Your task to perform on an android device: turn vacation reply on in the gmail app Image 0: 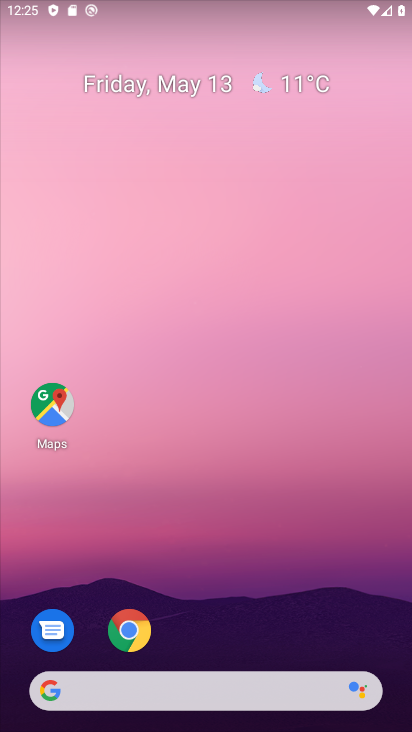
Step 0: click (40, 411)
Your task to perform on an android device: turn vacation reply on in the gmail app Image 1: 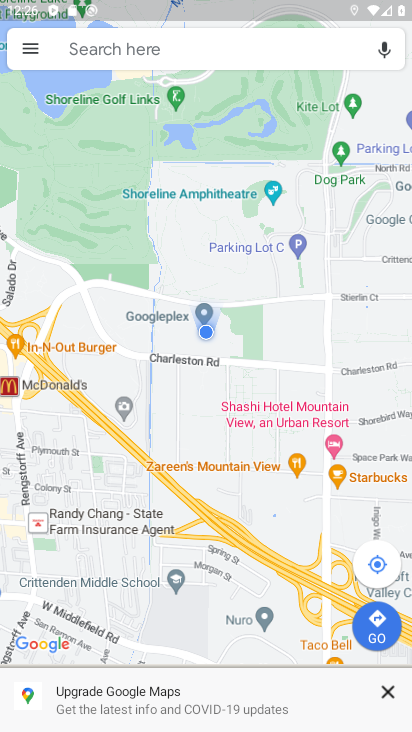
Step 1: press home button
Your task to perform on an android device: turn vacation reply on in the gmail app Image 2: 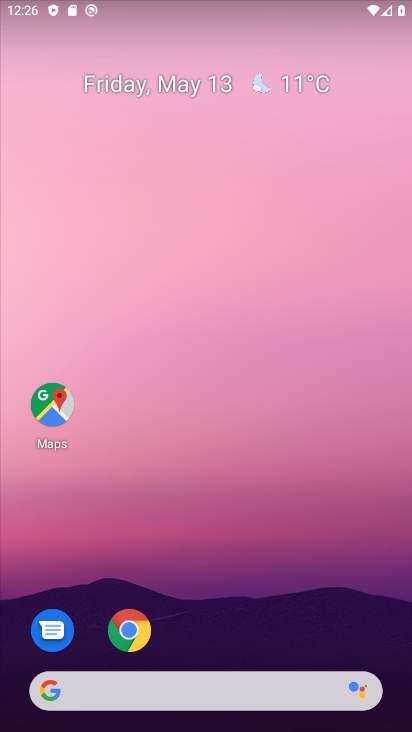
Step 2: drag from (42, 551) to (221, 242)
Your task to perform on an android device: turn vacation reply on in the gmail app Image 3: 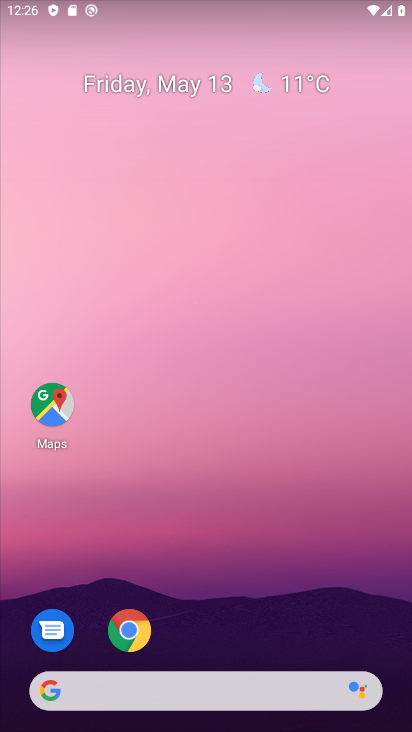
Step 3: drag from (22, 494) to (221, 162)
Your task to perform on an android device: turn vacation reply on in the gmail app Image 4: 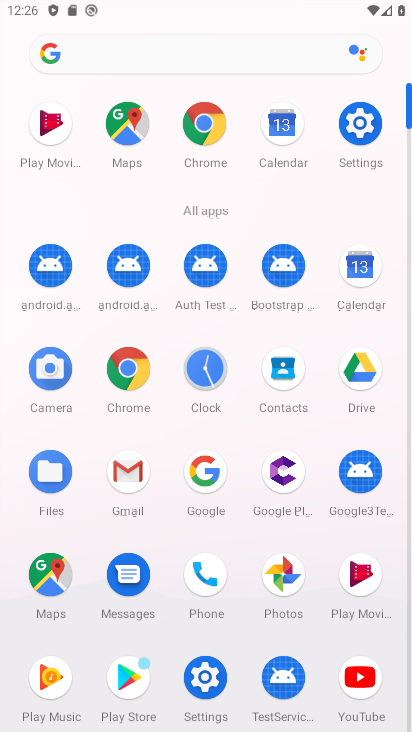
Step 4: click (128, 479)
Your task to perform on an android device: turn vacation reply on in the gmail app Image 5: 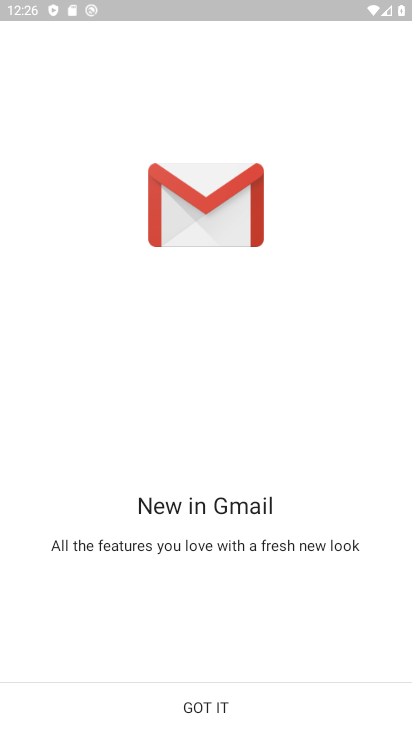
Step 5: click (186, 699)
Your task to perform on an android device: turn vacation reply on in the gmail app Image 6: 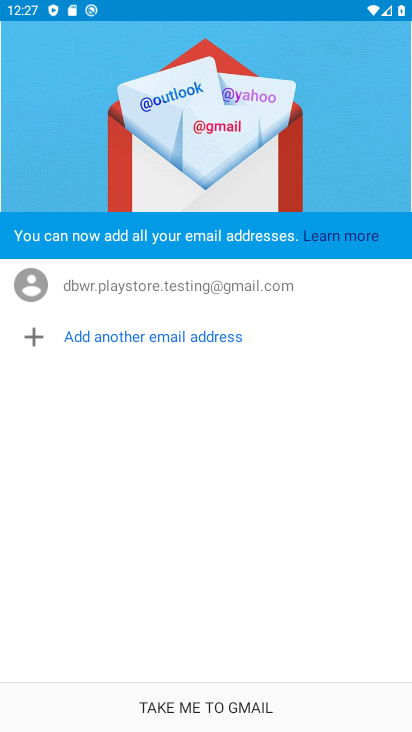
Step 6: click (175, 696)
Your task to perform on an android device: turn vacation reply on in the gmail app Image 7: 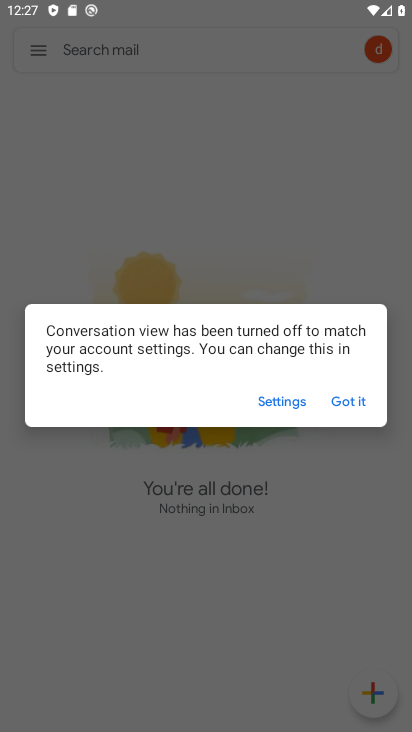
Step 7: click (358, 406)
Your task to perform on an android device: turn vacation reply on in the gmail app Image 8: 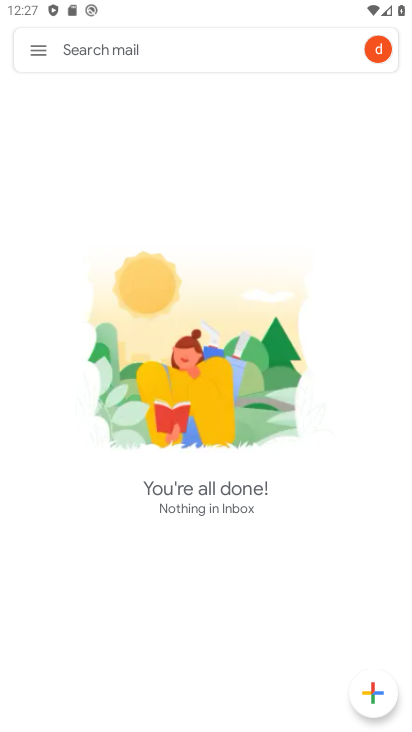
Step 8: click (42, 46)
Your task to perform on an android device: turn vacation reply on in the gmail app Image 9: 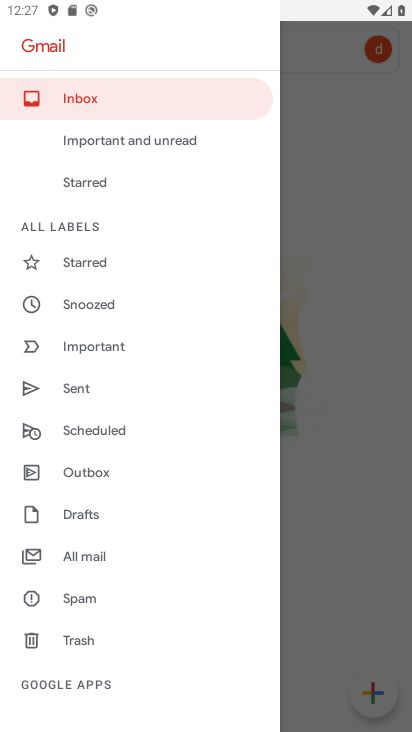
Step 9: drag from (75, 682) to (94, 293)
Your task to perform on an android device: turn vacation reply on in the gmail app Image 10: 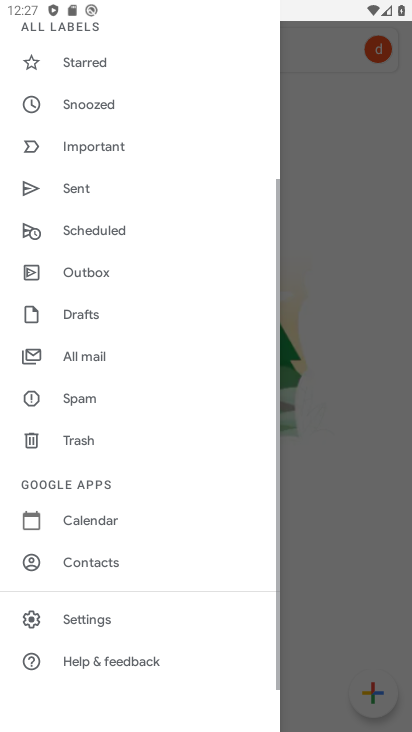
Step 10: click (115, 617)
Your task to perform on an android device: turn vacation reply on in the gmail app Image 11: 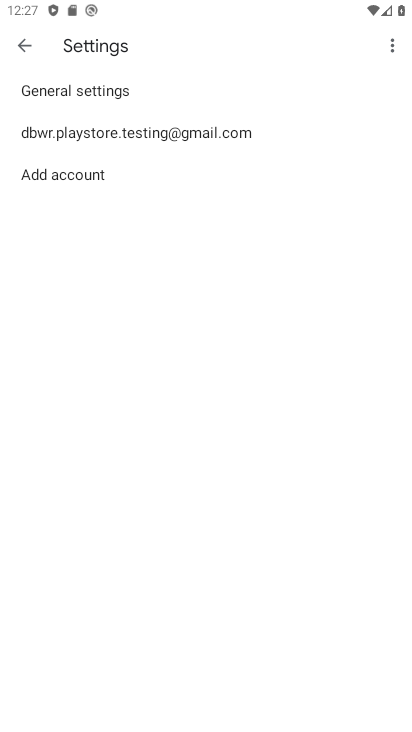
Step 11: click (53, 144)
Your task to perform on an android device: turn vacation reply on in the gmail app Image 12: 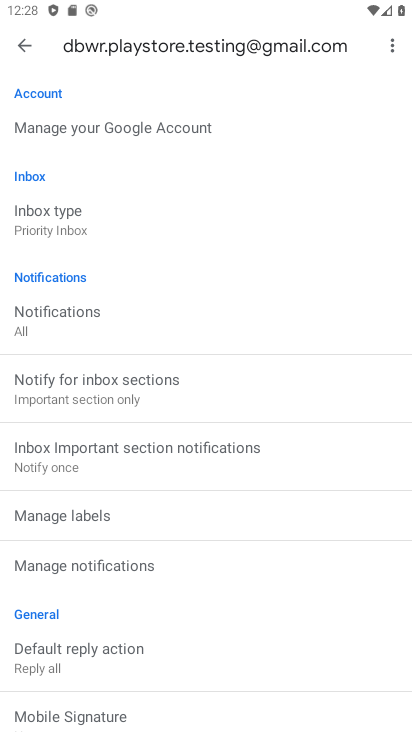
Step 12: drag from (76, 687) to (157, 211)
Your task to perform on an android device: turn vacation reply on in the gmail app Image 13: 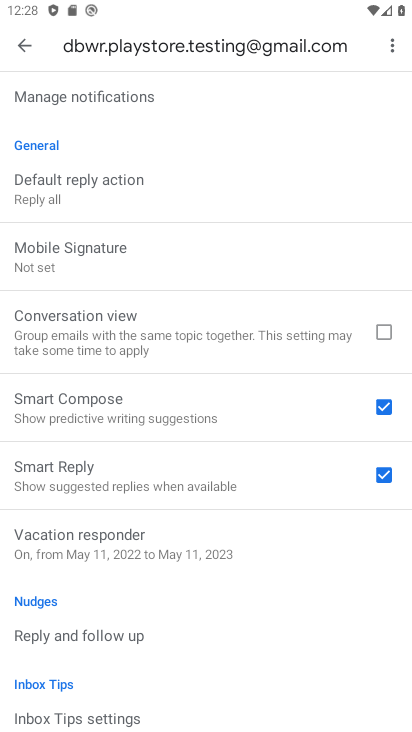
Step 13: click (94, 537)
Your task to perform on an android device: turn vacation reply on in the gmail app Image 14: 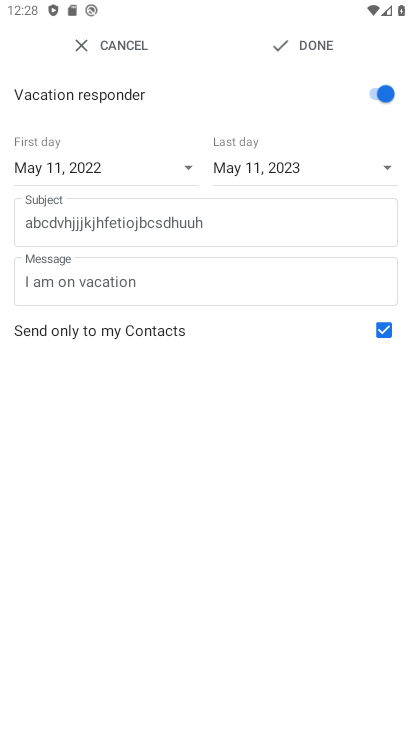
Step 14: click (281, 46)
Your task to perform on an android device: turn vacation reply on in the gmail app Image 15: 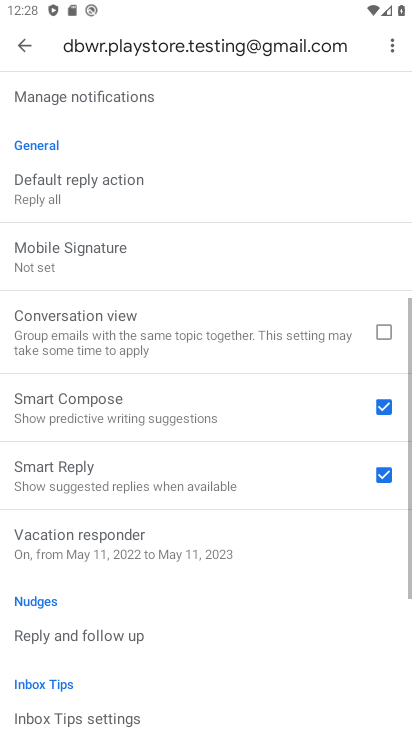
Step 15: task complete